Your task to perform on an android device: Open Google Chrome and click the shortcut for Amazon.com Image 0: 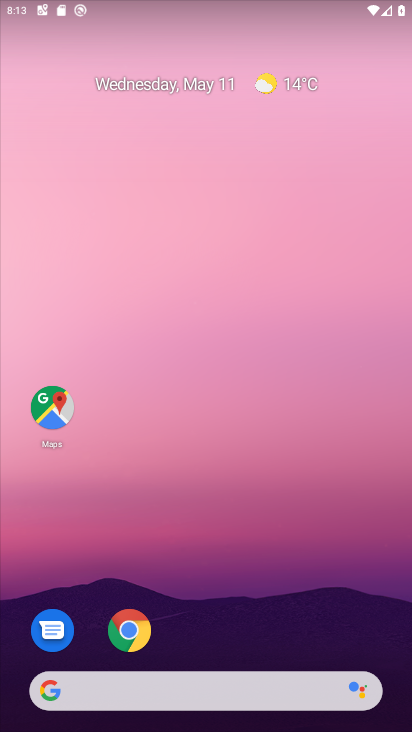
Step 0: press back button
Your task to perform on an android device: Open Google Chrome and click the shortcut for Amazon.com Image 1: 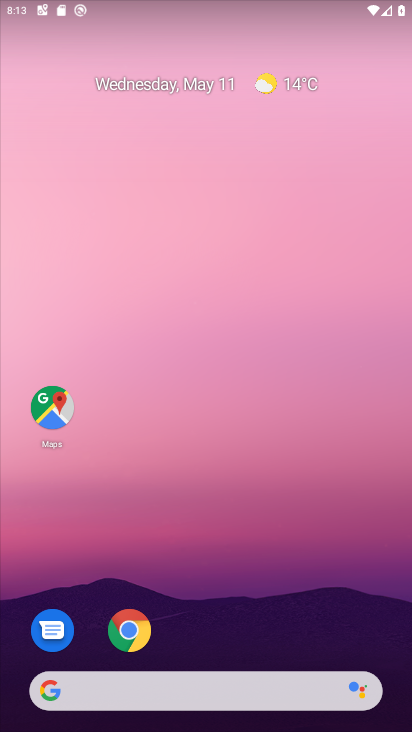
Step 1: click (132, 625)
Your task to perform on an android device: Open Google Chrome and click the shortcut for Amazon.com Image 2: 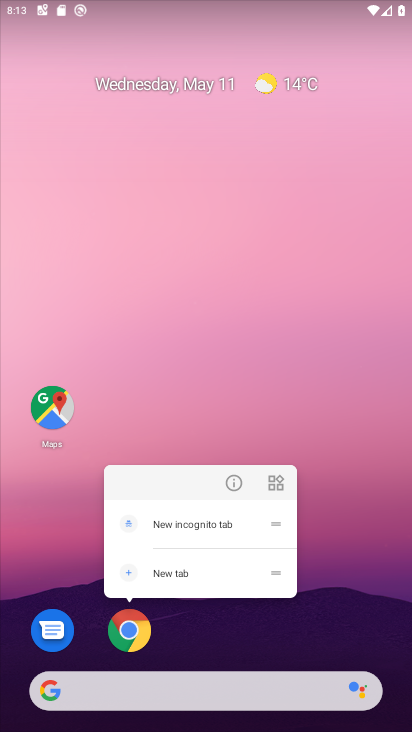
Step 2: click (132, 623)
Your task to perform on an android device: Open Google Chrome and click the shortcut for Amazon.com Image 3: 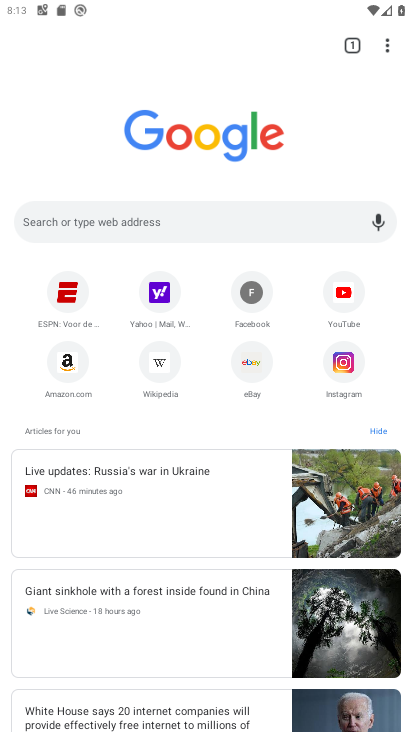
Step 3: click (73, 364)
Your task to perform on an android device: Open Google Chrome and click the shortcut for Amazon.com Image 4: 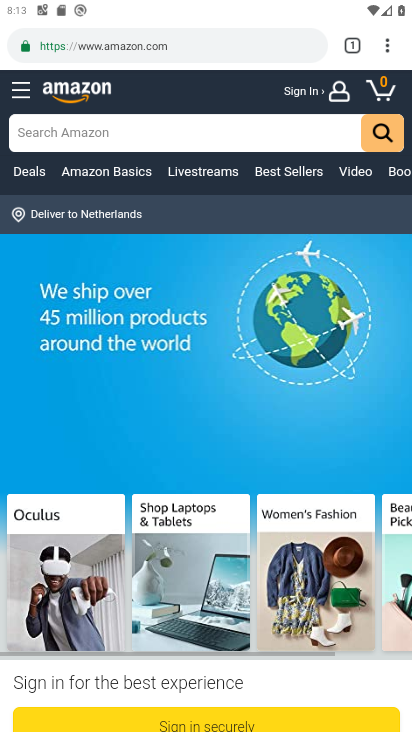
Step 4: task complete